Your task to perform on an android device: toggle improve location accuracy Image 0: 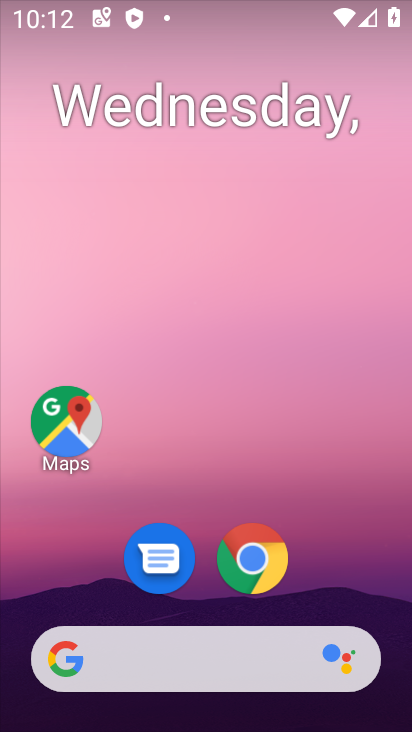
Step 0: drag from (14, 611) to (229, 93)
Your task to perform on an android device: toggle improve location accuracy Image 1: 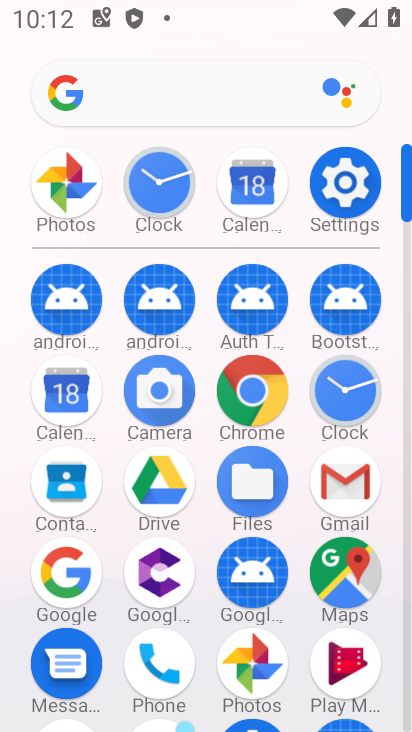
Step 1: click (366, 173)
Your task to perform on an android device: toggle improve location accuracy Image 2: 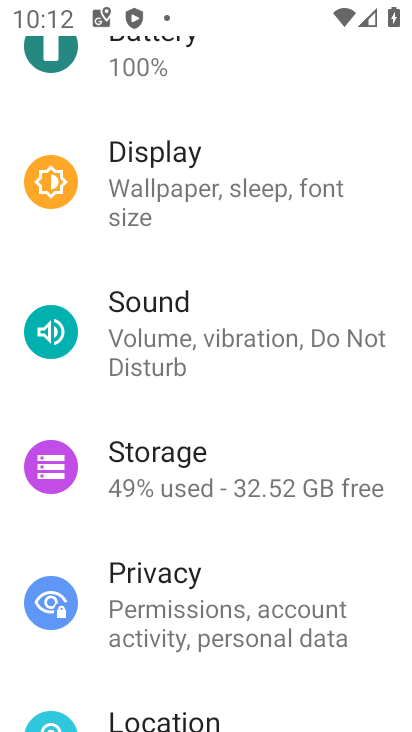
Step 2: click (119, 717)
Your task to perform on an android device: toggle improve location accuracy Image 3: 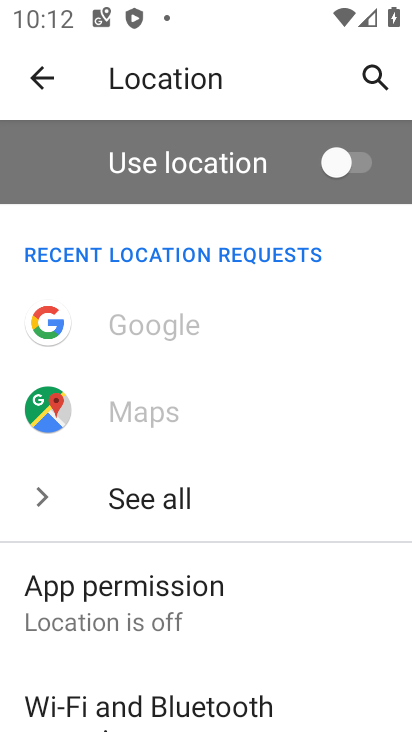
Step 3: drag from (31, 534) to (196, 183)
Your task to perform on an android device: toggle improve location accuracy Image 4: 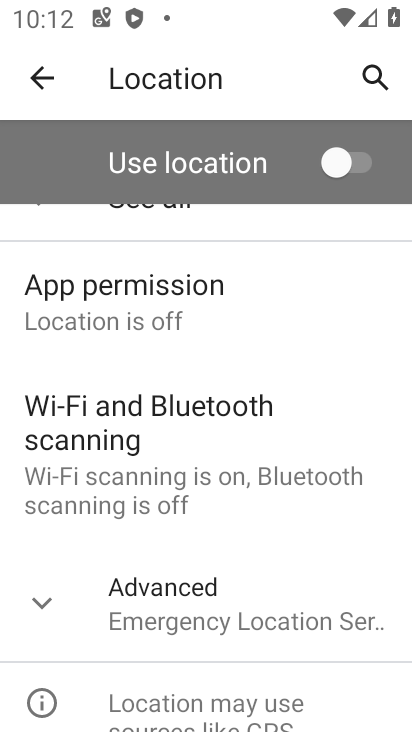
Step 4: click (109, 620)
Your task to perform on an android device: toggle improve location accuracy Image 5: 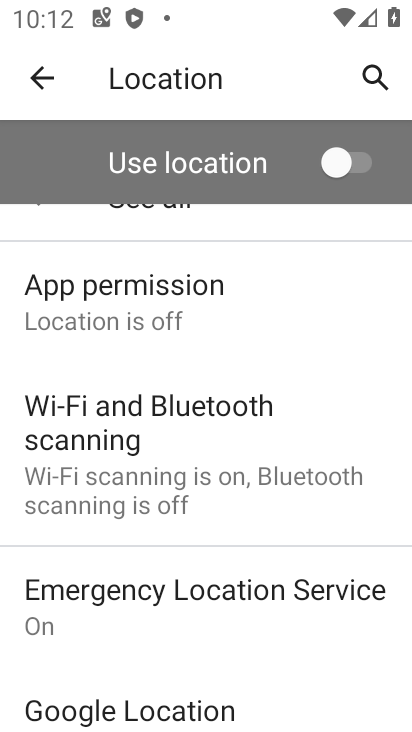
Step 5: drag from (28, 601) to (240, 285)
Your task to perform on an android device: toggle improve location accuracy Image 6: 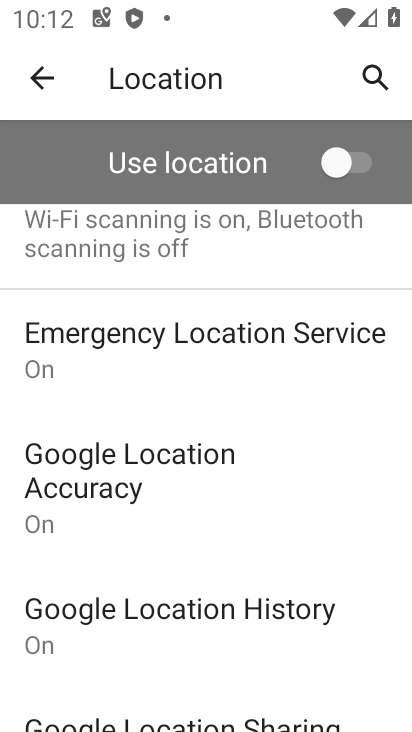
Step 6: drag from (47, 708) to (284, 234)
Your task to perform on an android device: toggle improve location accuracy Image 7: 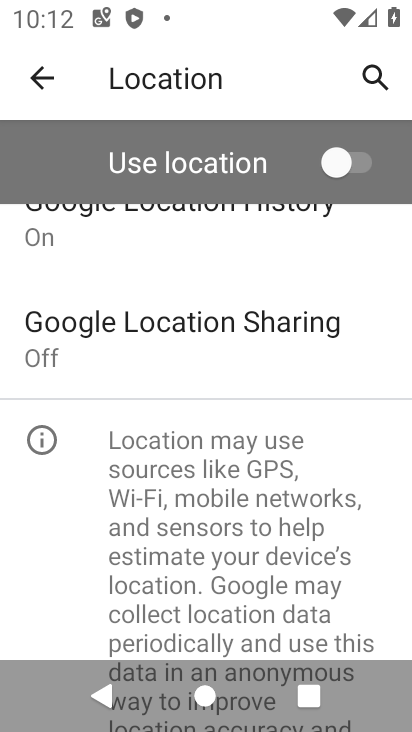
Step 7: drag from (234, 277) to (207, 591)
Your task to perform on an android device: toggle improve location accuracy Image 8: 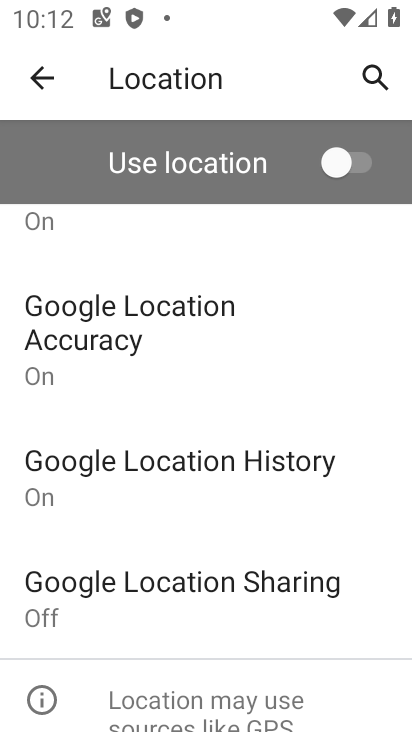
Step 8: drag from (232, 293) to (235, 577)
Your task to perform on an android device: toggle improve location accuracy Image 9: 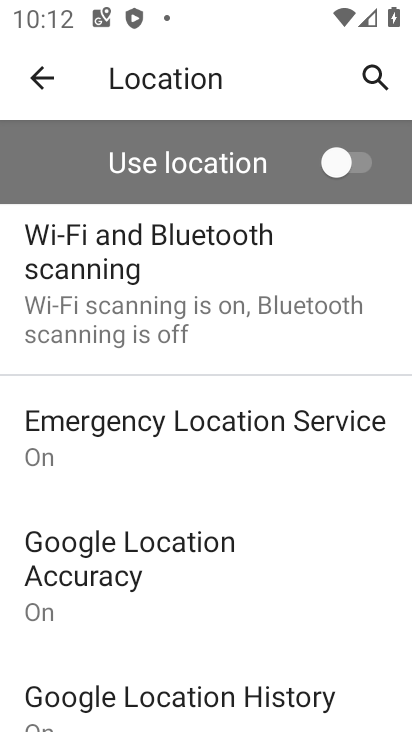
Step 9: click (137, 575)
Your task to perform on an android device: toggle improve location accuracy Image 10: 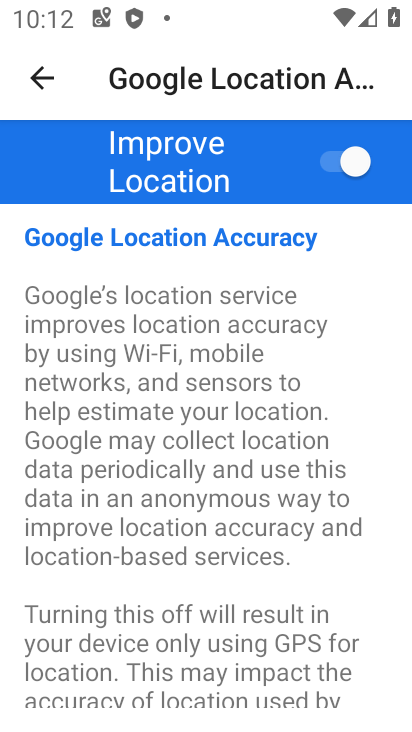
Step 10: click (354, 156)
Your task to perform on an android device: toggle improve location accuracy Image 11: 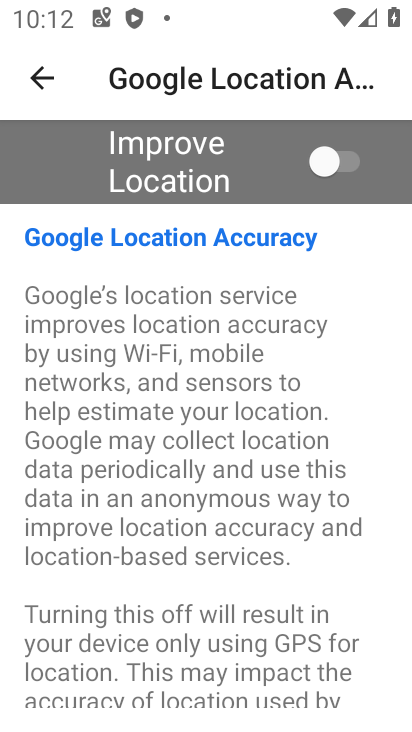
Step 11: task complete